Your task to perform on an android device: turn on improve location accuracy Image 0: 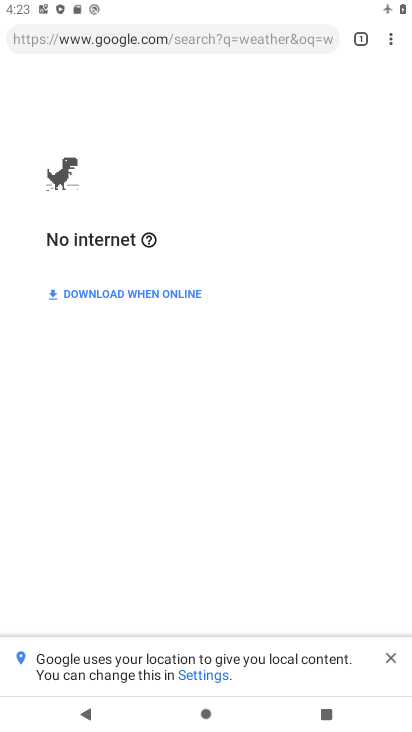
Step 0: press home button
Your task to perform on an android device: turn on improve location accuracy Image 1: 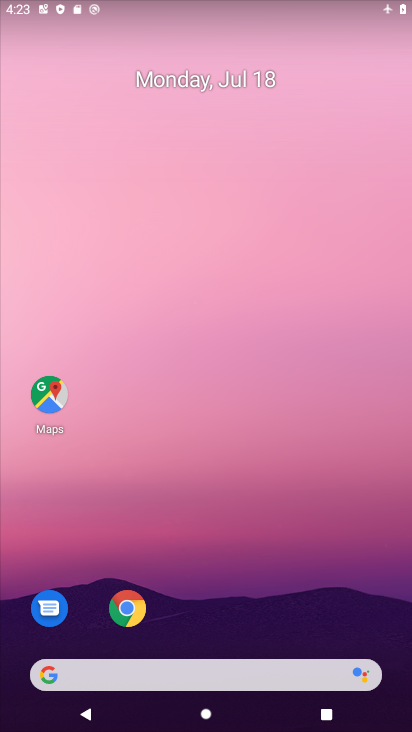
Step 1: drag from (256, 638) to (210, 88)
Your task to perform on an android device: turn on improve location accuracy Image 2: 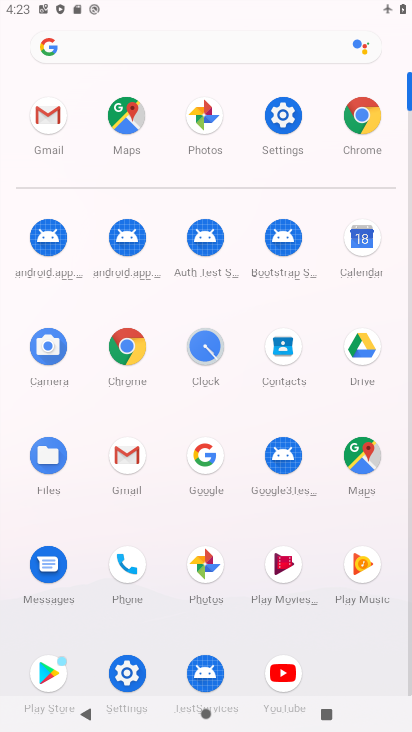
Step 2: click (274, 110)
Your task to perform on an android device: turn on improve location accuracy Image 3: 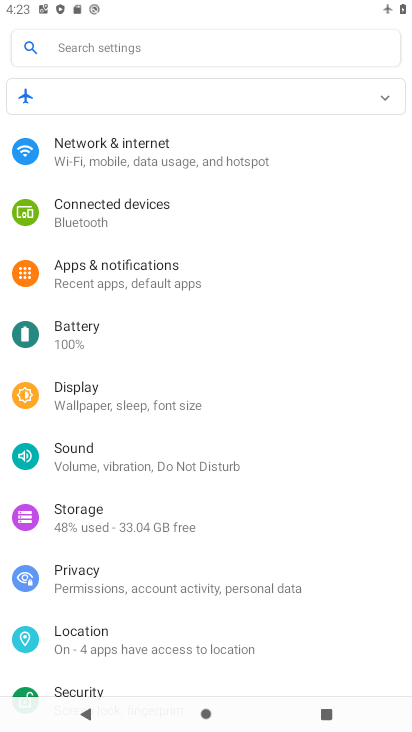
Step 3: click (116, 641)
Your task to perform on an android device: turn on improve location accuracy Image 4: 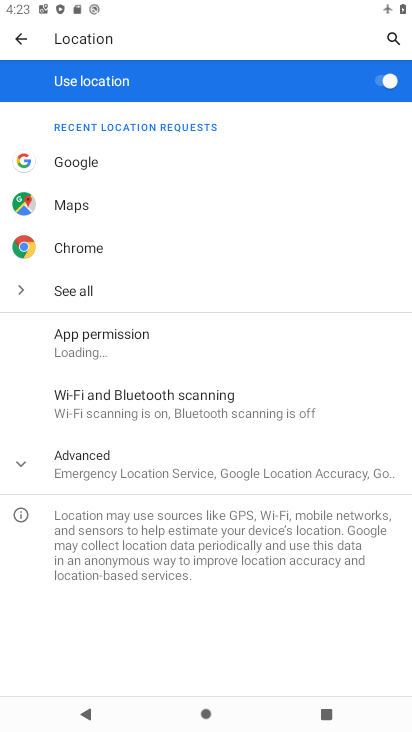
Step 4: click (89, 465)
Your task to perform on an android device: turn on improve location accuracy Image 5: 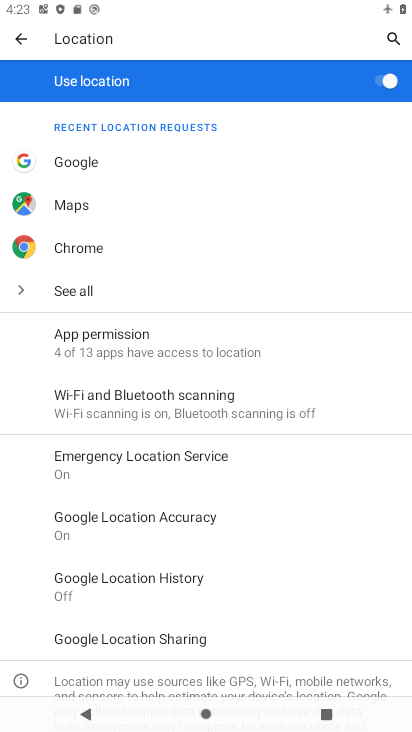
Step 5: click (168, 513)
Your task to perform on an android device: turn on improve location accuracy Image 6: 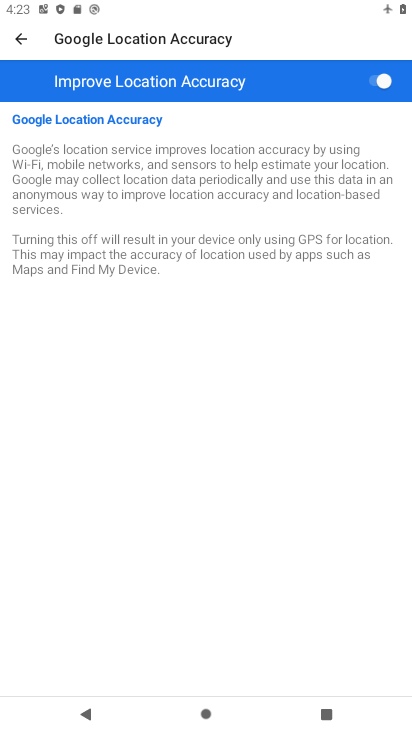
Step 6: task complete